Your task to perform on an android device: Open the Play Movies app and select the watchlist tab. Image 0: 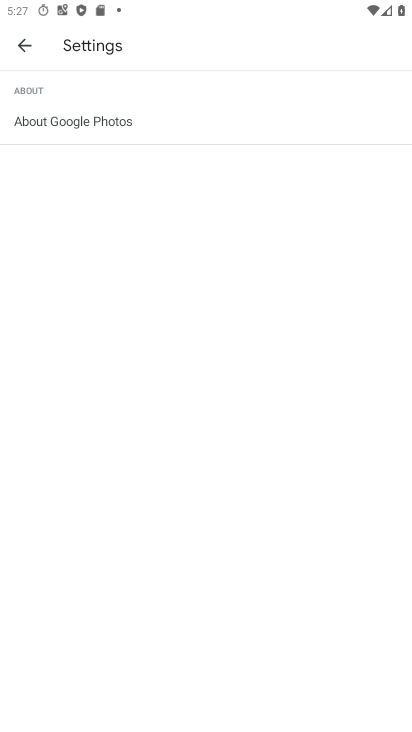
Step 0: press home button
Your task to perform on an android device: Open the Play Movies app and select the watchlist tab. Image 1: 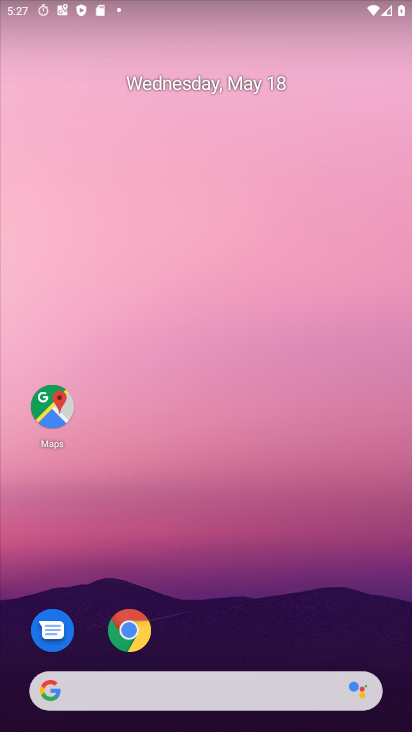
Step 1: drag from (239, 670) to (233, 248)
Your task to perform on an android device: Open the Play Movies app and select the watchlist tab. Image 2: 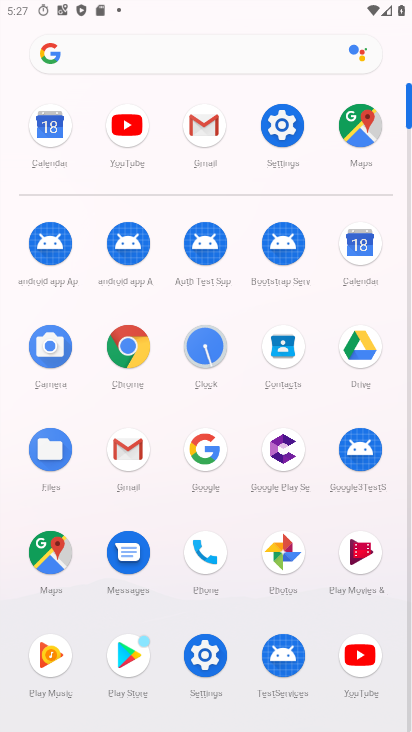
Step 2: click (362, 562)
Your task to perform on an android device: Open the Play Movies app and select the watchlist tab. Image 3: 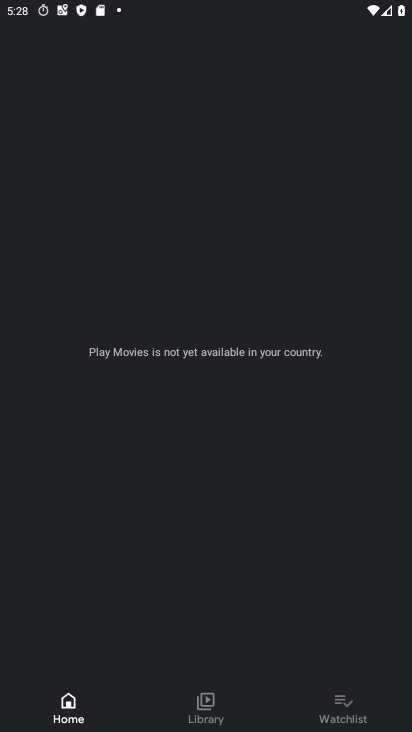
Step 3: click (331, 707)
Your task to perform on an android device: Open the Play Movies app and select the watchlist tab. Image 4: 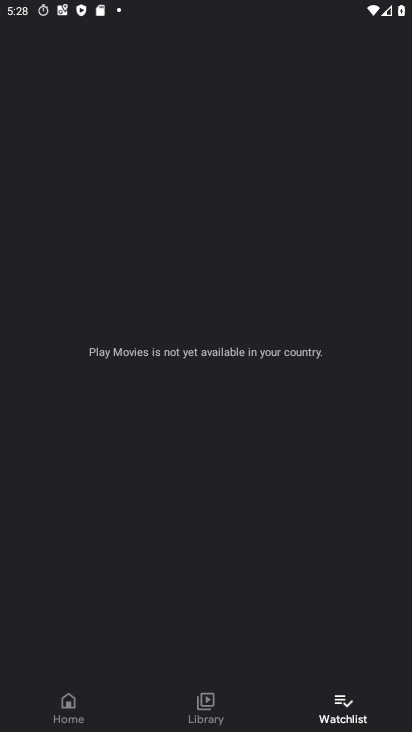
Step 4: task complete